Your task to perform on an android device: change timer sound Image 0: 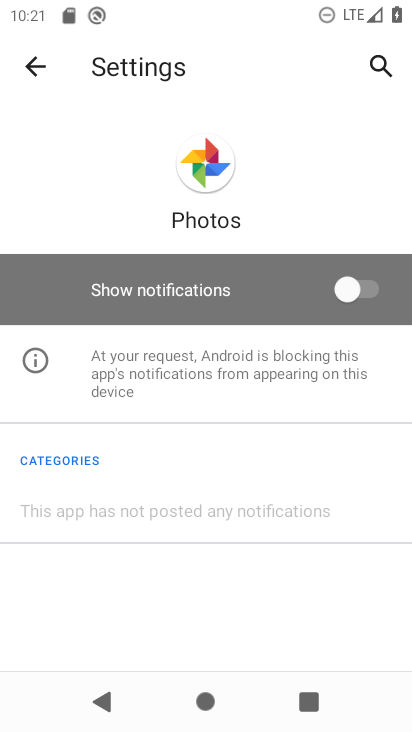
Step 0: press home button
Your task to perform on an android device: change timer sound Image 1: 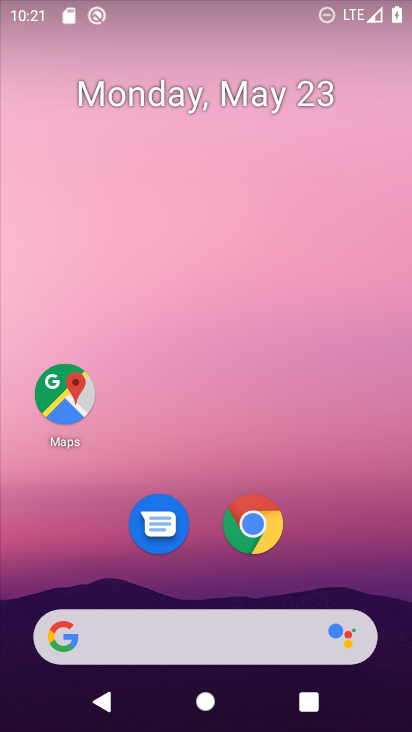
Step 1: drag from (197, 451) to (185, 19)
Your task to perform on an android device: change timer sound Image 2: 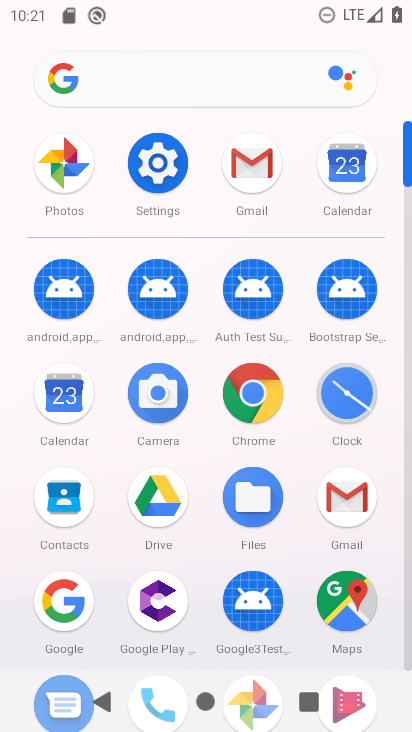
Step 2: click (338, 381)
Your task to perform on an android device: change timer sound Image 3: 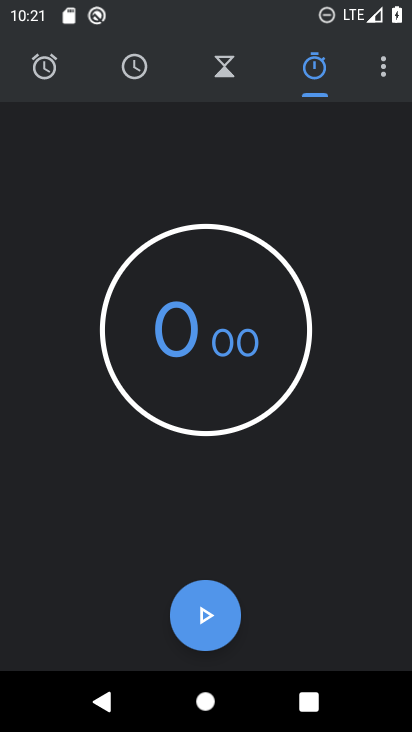
Step 3: click (380, 73)
Your task to perform on an android device: change timer sound Image 4: 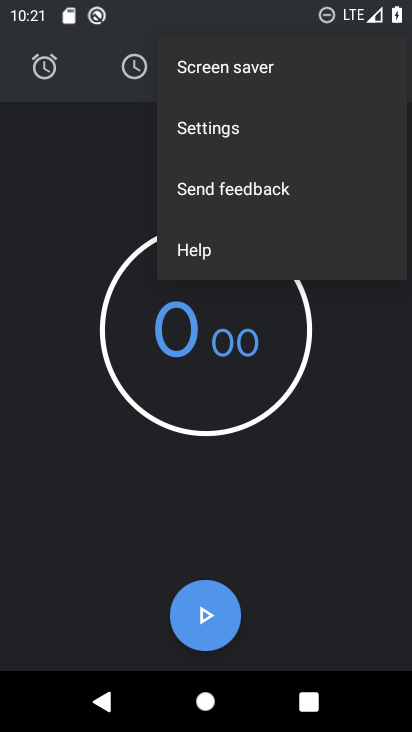
Step 4: click (312, 123)
Your task to perform on an android device: change timer sound Image 5: 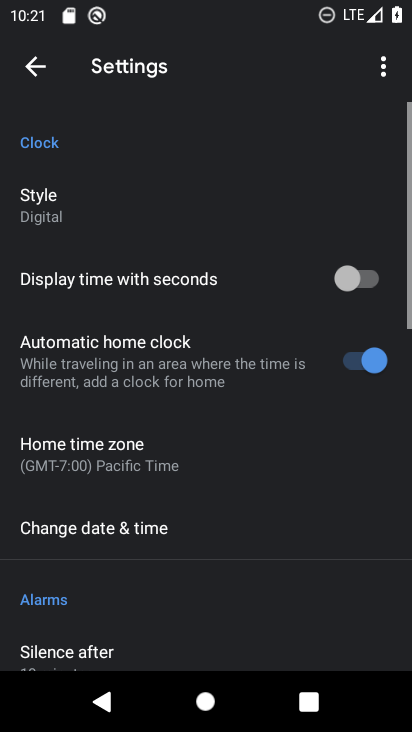
Step 5: drag from (227, 454) to (255, 0)
Your task to perform on an android device: change timer sound Image 6: 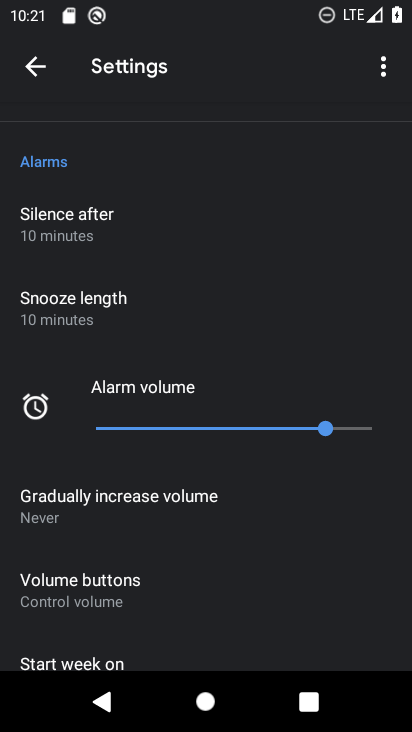
Step 6: drag from (196, 334) to (232, 2)
Your task to perform on an android device: change timer sound Image 7: 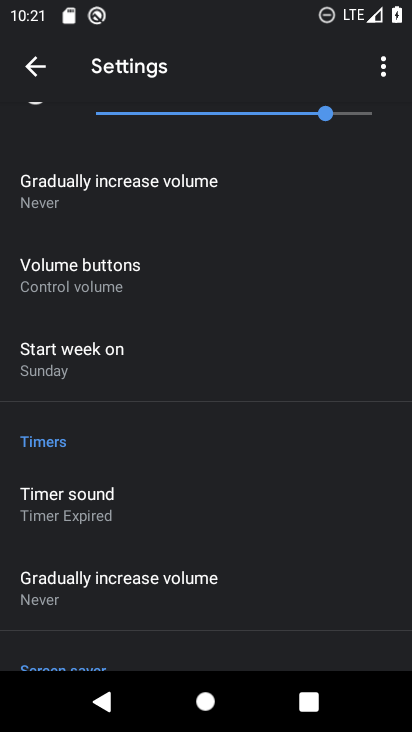
Step 7: click (162, 494)
Your task to perform on an android device: change timer sound Image 8: 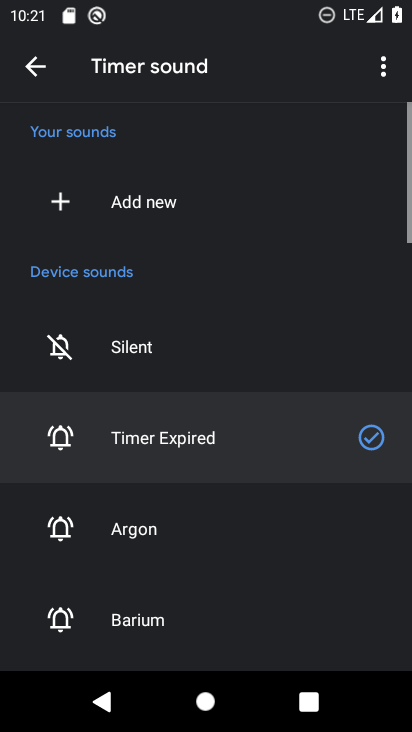
Step 8: click (155, 525)
Your task to perform on an android device: change timer sound Image 9: 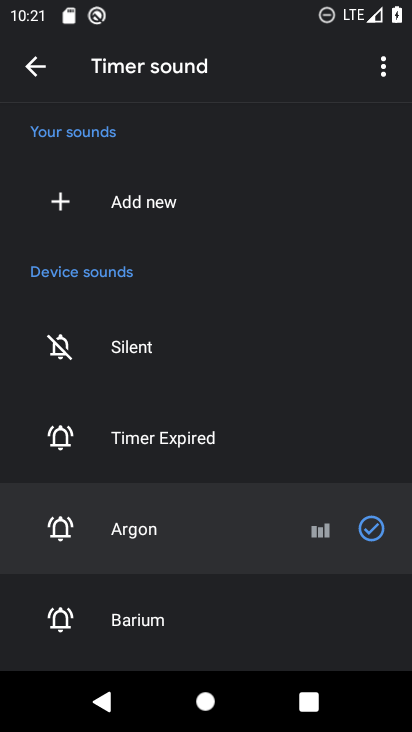
Step 9: task complete